Your task to perform on an android device: turn off javascript in the chrome app Image 0: 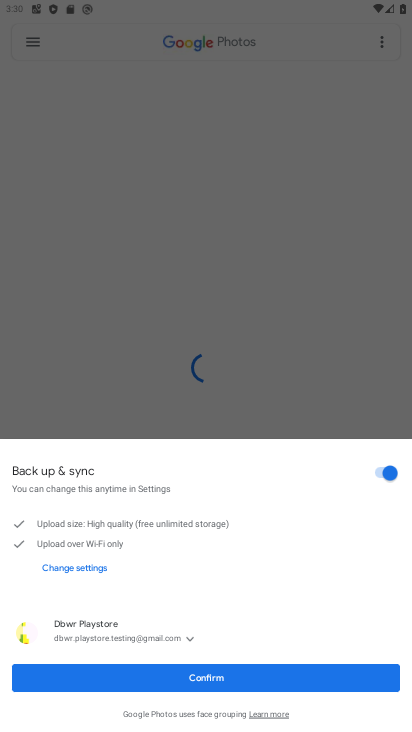
Step 0: press home button
Your task to perform on an android device: turn off javascript in the chrome app Image 1: 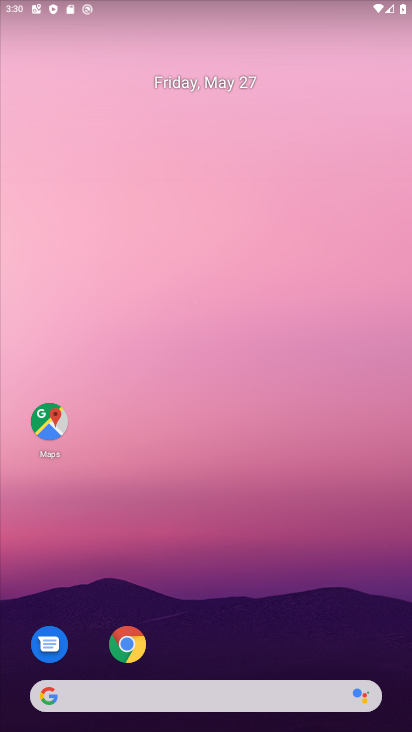
Step 1: click (134, 633)
Your task to perform on an android device: turn off javascript in the chrome app Image 2: 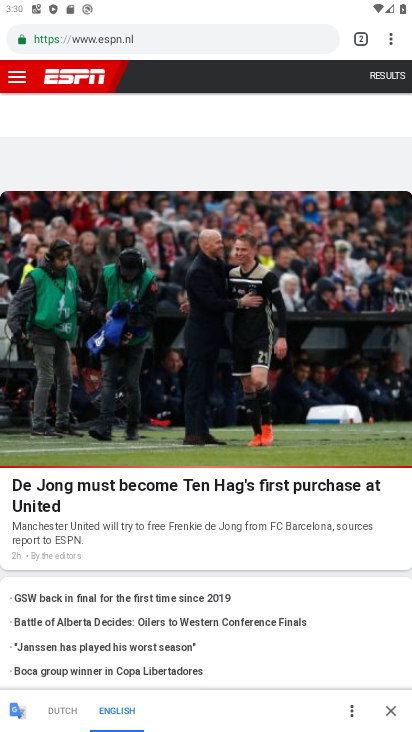
Step 2: click (386, 40)
Your task to perform on an android device: turn off javascript in the chrome app Image 3: 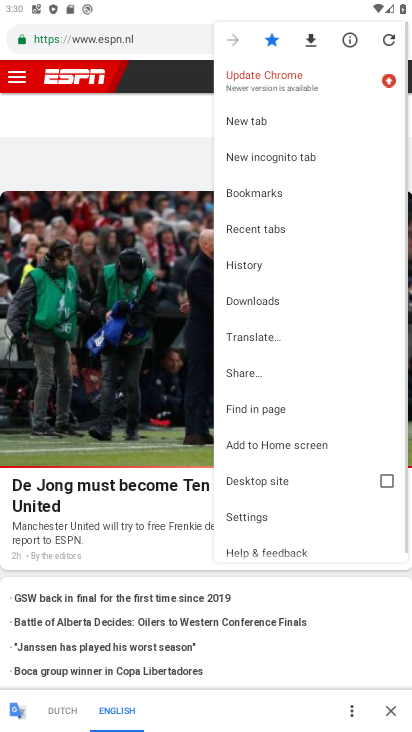
Step 3: click (278, 516)
Your task to perform on an android device: turn off javascript in the chrome app Image 4: 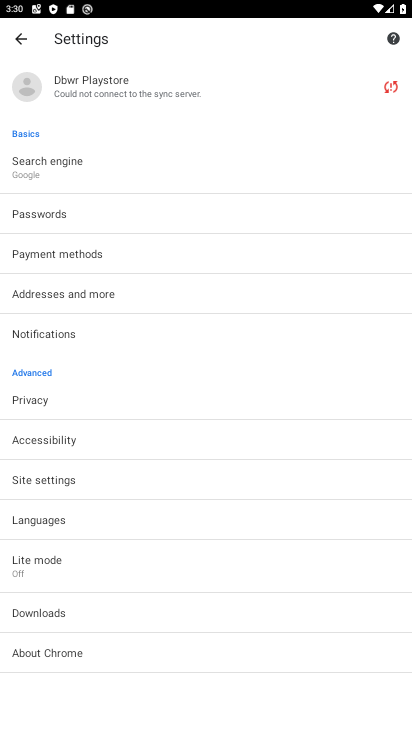
Step 4: click (64, 466)
Your task to perform on an android device: turn off javascript in the chrome app Image 5: 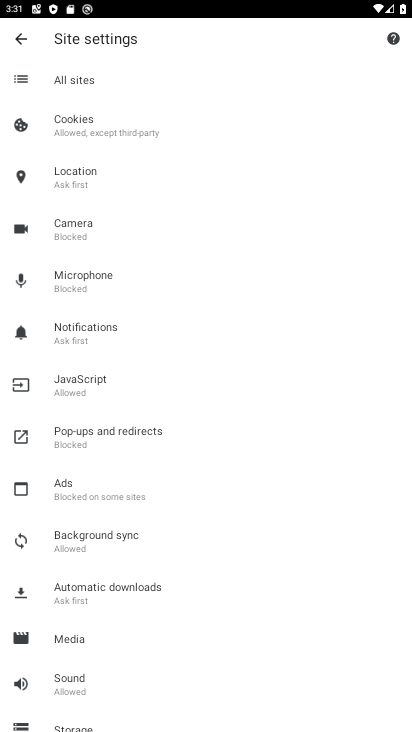
Step 5: click (100, 382)
Your task to perform on an android device: turn off javascript in the chrome app Image 6: 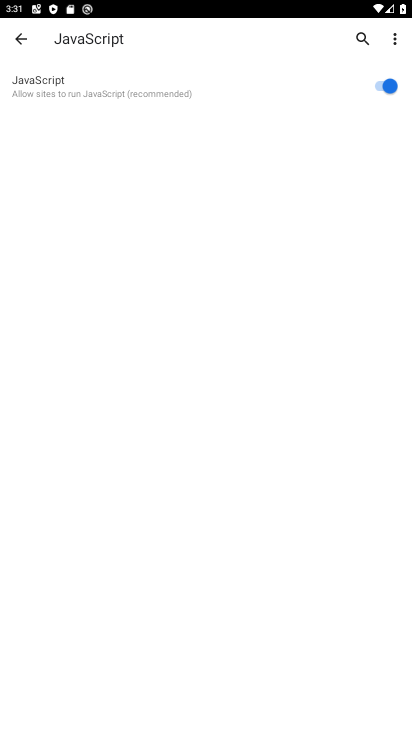
Step 6: click (376, 92)
Your task to perform on an android device: turn off javascript in the chrome app Image 7: 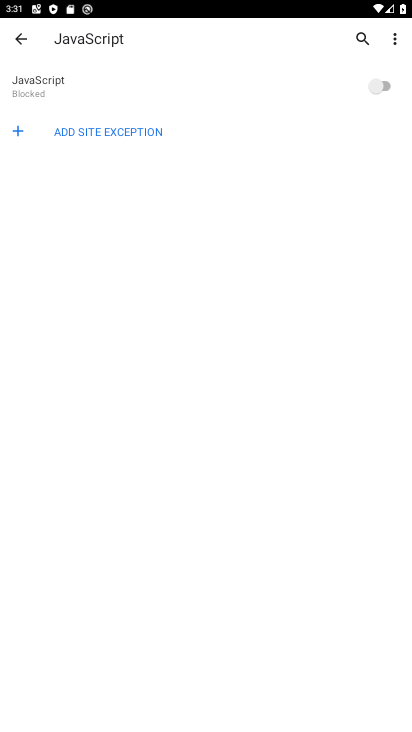
Step 7: task complete